Your task to perform on an android device: Go to Amazon Image 0: 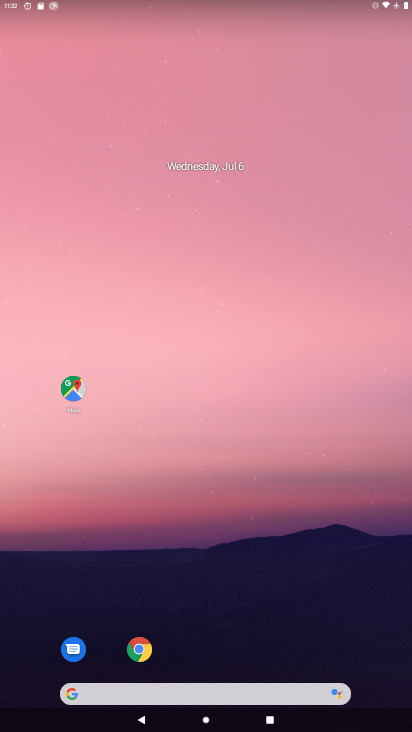
Step 0: click (149, 654)
Your task to perform on an android device: Go to Amazon Image 1: 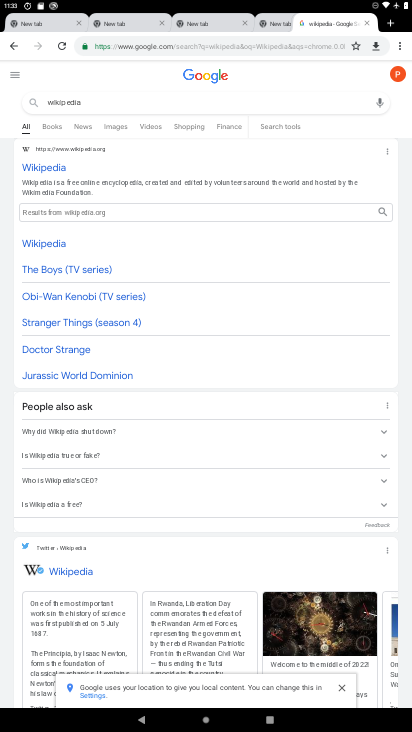
Step 1: click (365, 46)
Your task to perform on an android device: Go to Amazon Image 2: 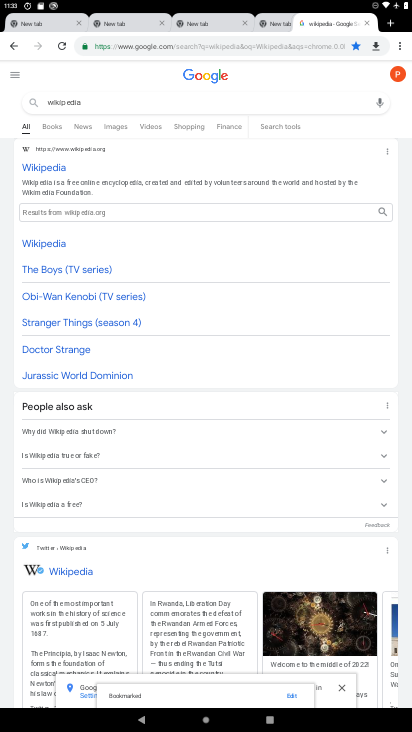
Step 2: click (338, 44)
Your task to perform on an android device: Go to Amazon Image 3: 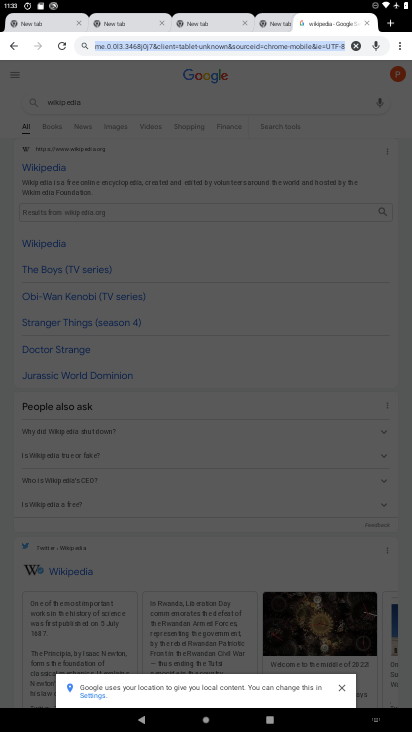
Step 3: click (355, 43)
Your task to perform on an android device: Go to Amazon Image 4: 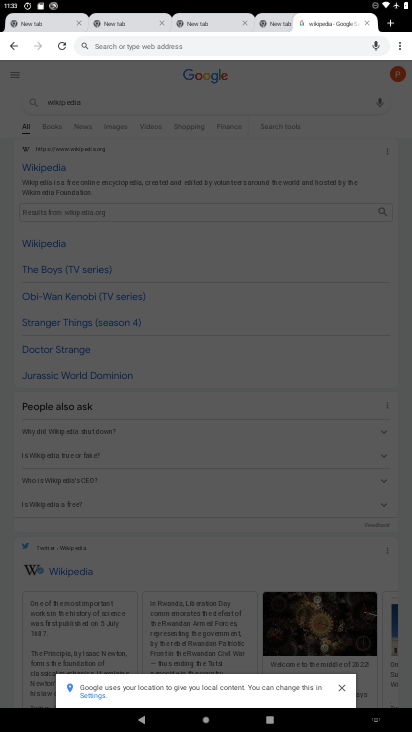
Step 4: type "Amazon"
Your task to perform on an android device: Go to Amazon Image 5: 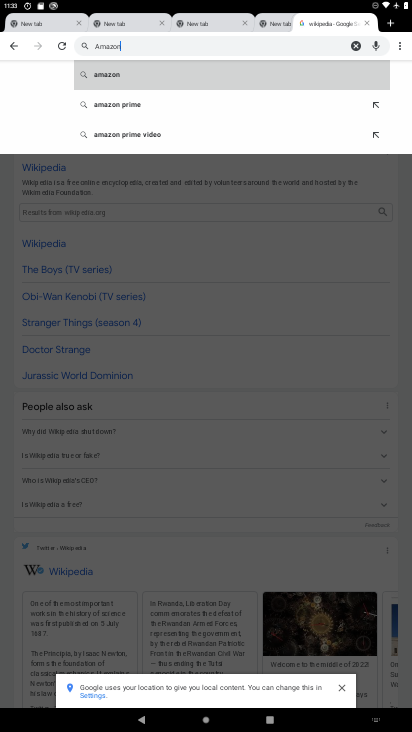
Step 5: click (139, 73)
Your task to perform on an android device: Go to Amazon Image 6: 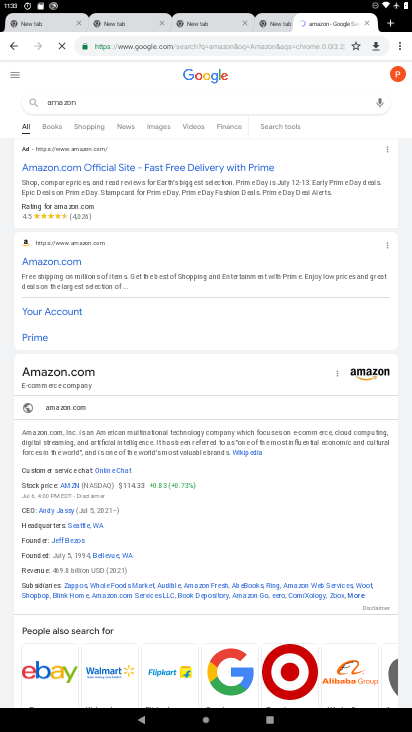
Step 6: task complete